Your task to perform on an android device: uninstall "TextNow: Call + Text Unlimited" Image 0: 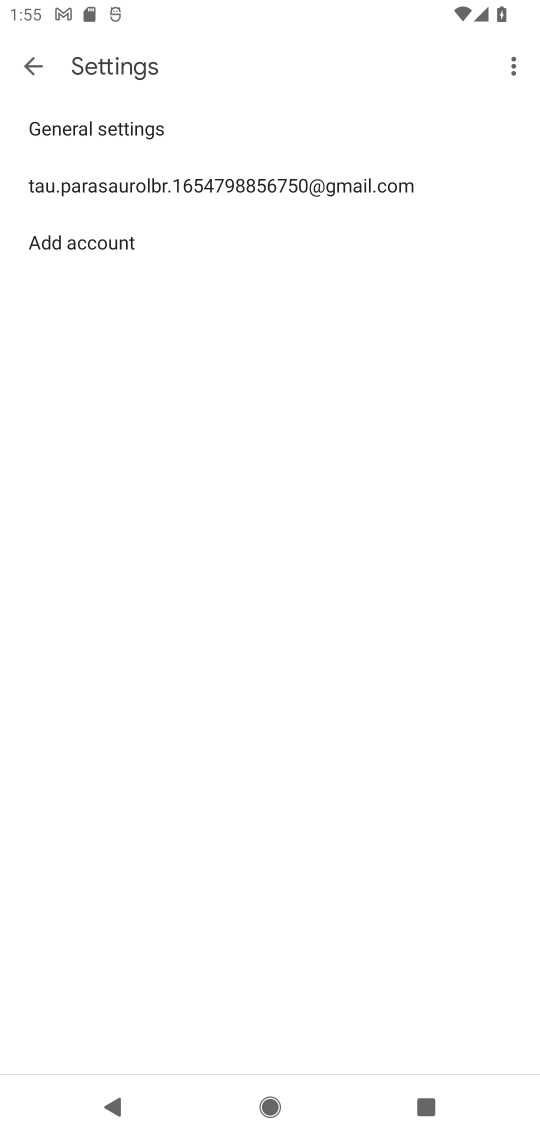
Step 0: press home button
Your task to perform on an android device: uninstall "TextNow: Call + Text Unlimited" Image 1: 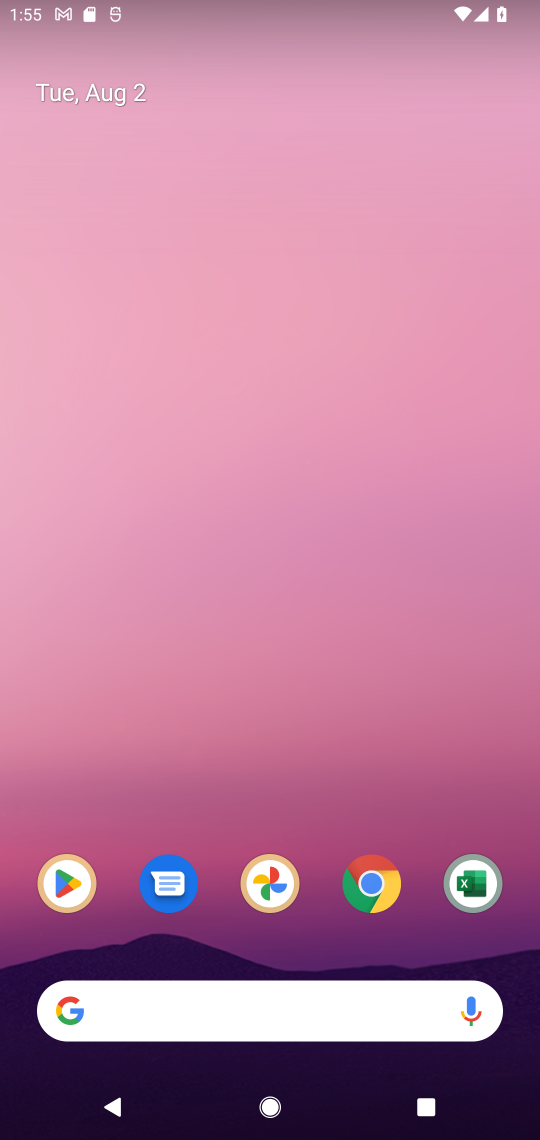
Step 1: click (61, 878)
Your task to perform on an android device: uninstall "TextNow: Call + Text Unlimited" Image 2: 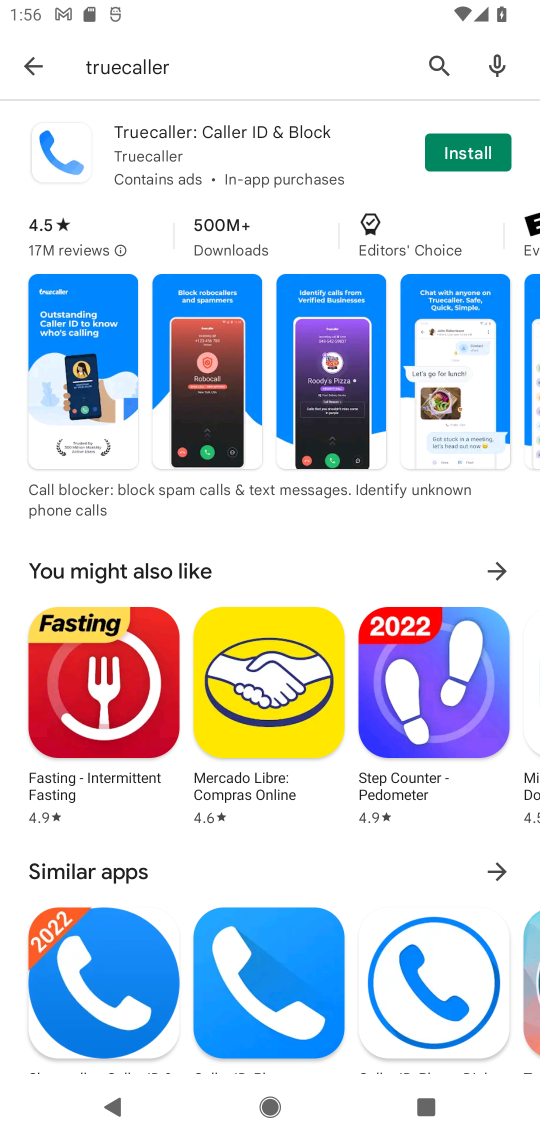
Step 2: click (434, 63)
Your task to perform on an android device: uninstall "TextNow: Call + Text Unlimited" Image 3: 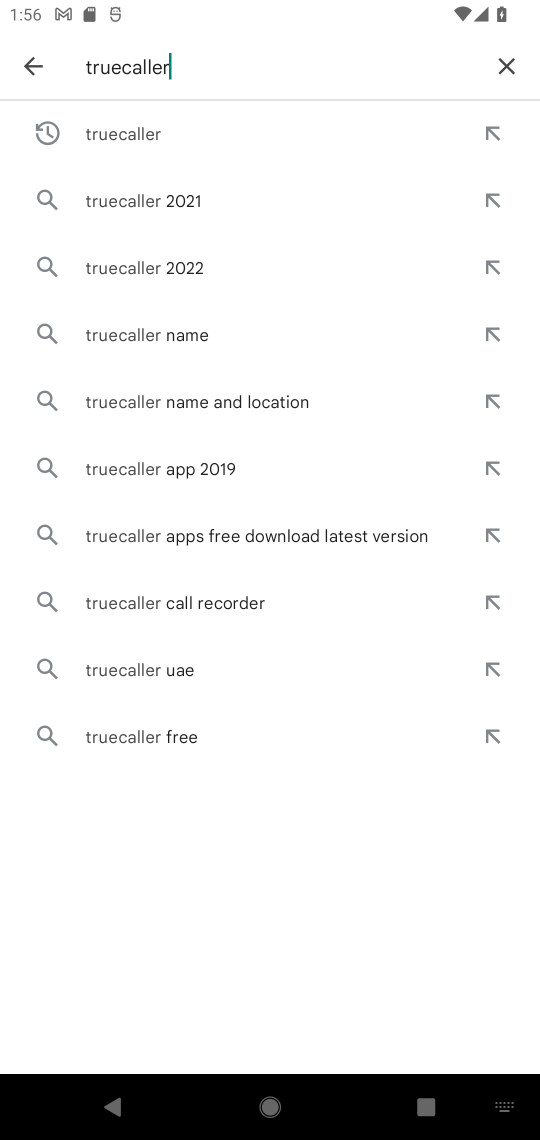
Step 3: click (512, 53)
Your task to perform on an android device: uninstall "TextNow: Call + Text Unlimited" Image 4: 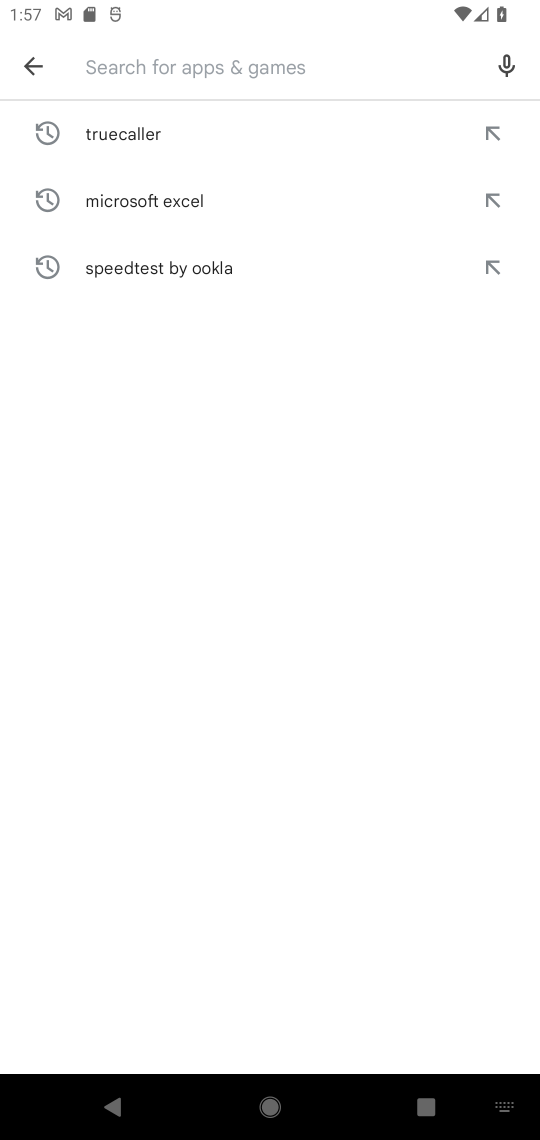
Step 4: type "TextNow:Call+Text Unlimited"
Your task to perform on an android device: uninstall "TextNow: Call + Text Unlimited" Image 5: 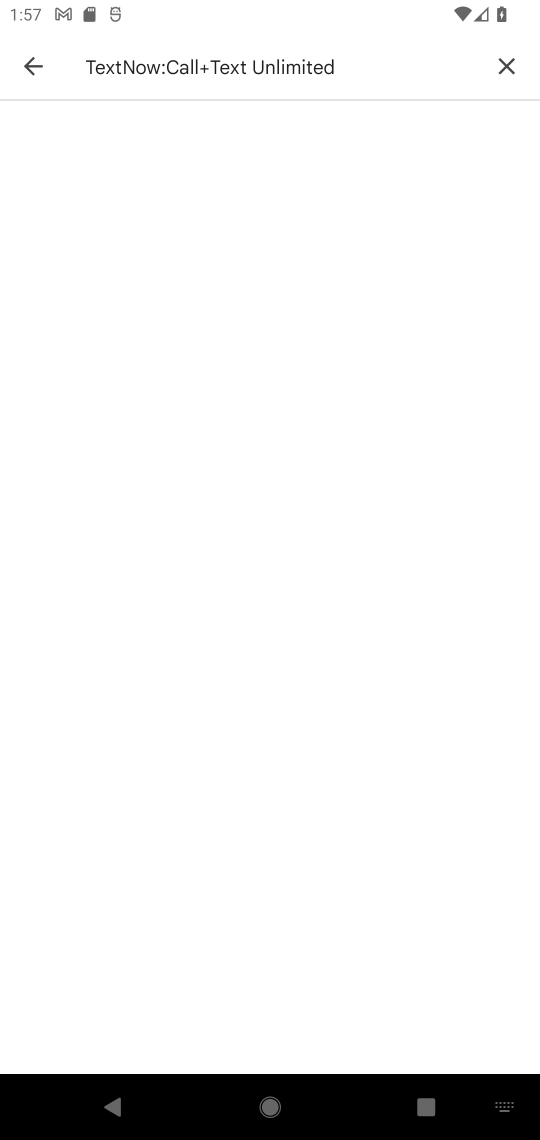
Step 5: click (363, 63)
Your task to perform on an android device: uninstall "TextNow: Call + Text Unlimited" Image 6: 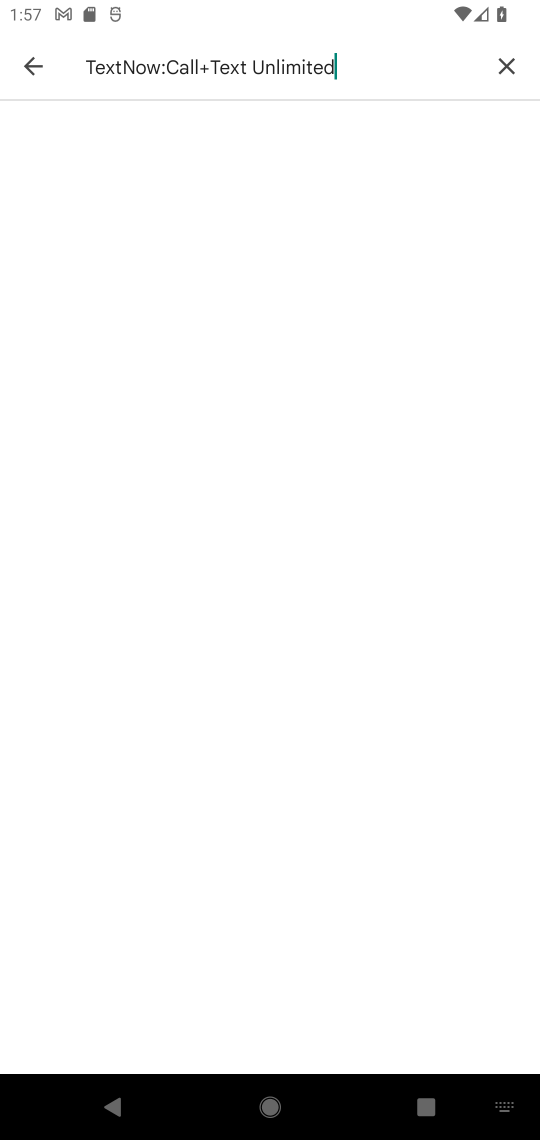
Step 6: click (363, 63)
Your task to perform on an android device: uninstall "TextNow: Call + Text Unlimited" Image 7: 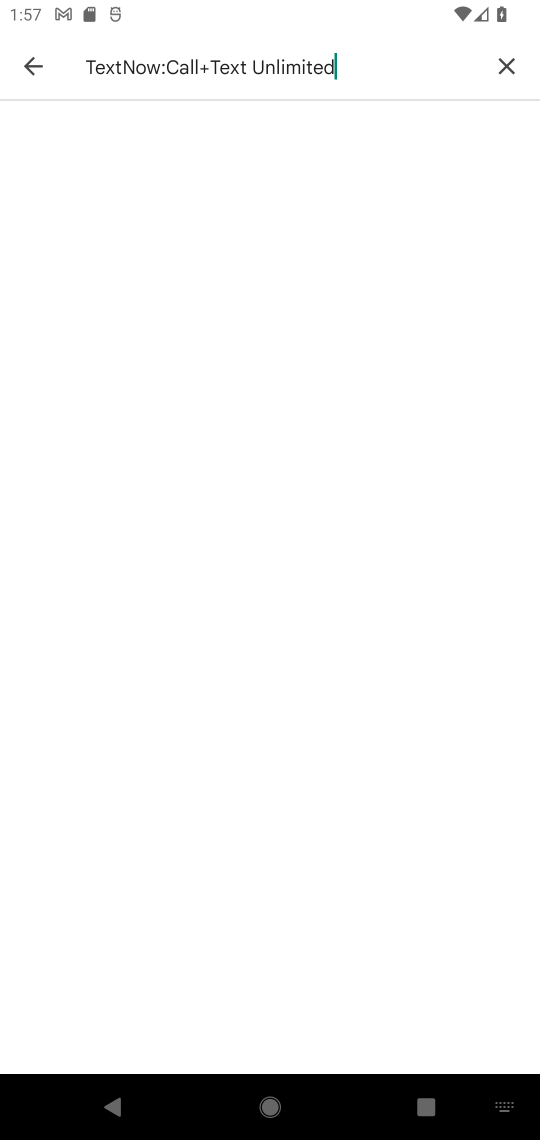
Step 7: click (363, 63)
Your task to perform on an android device: uninstall "TextNow: Call + Text Unlimited" Image 8: 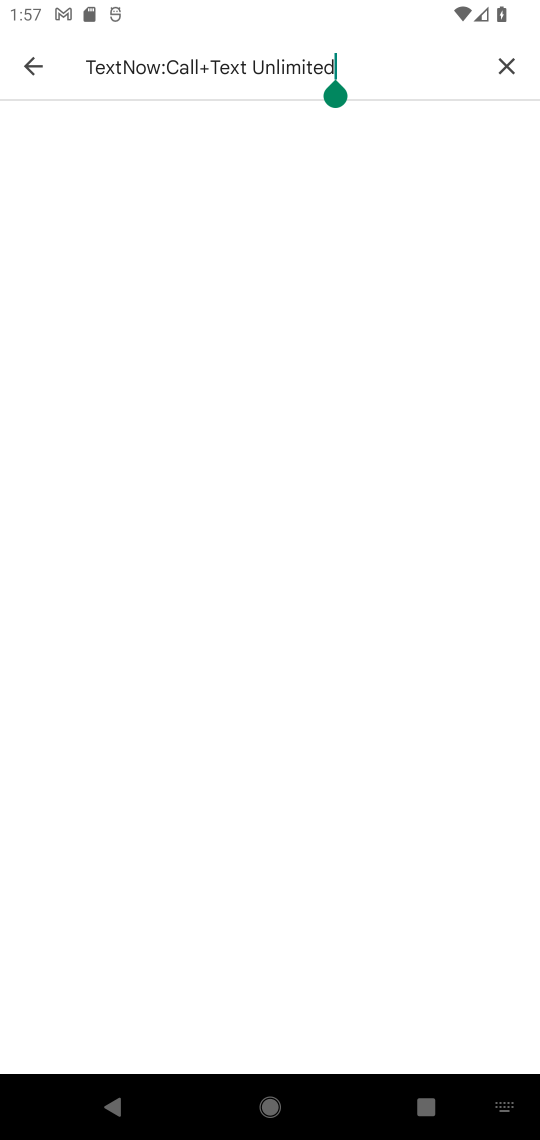
Step 8: click (36, 65)
Your task to perform on an android device: uninstall "TextNow: Call + Text Unlimited" Image 9: 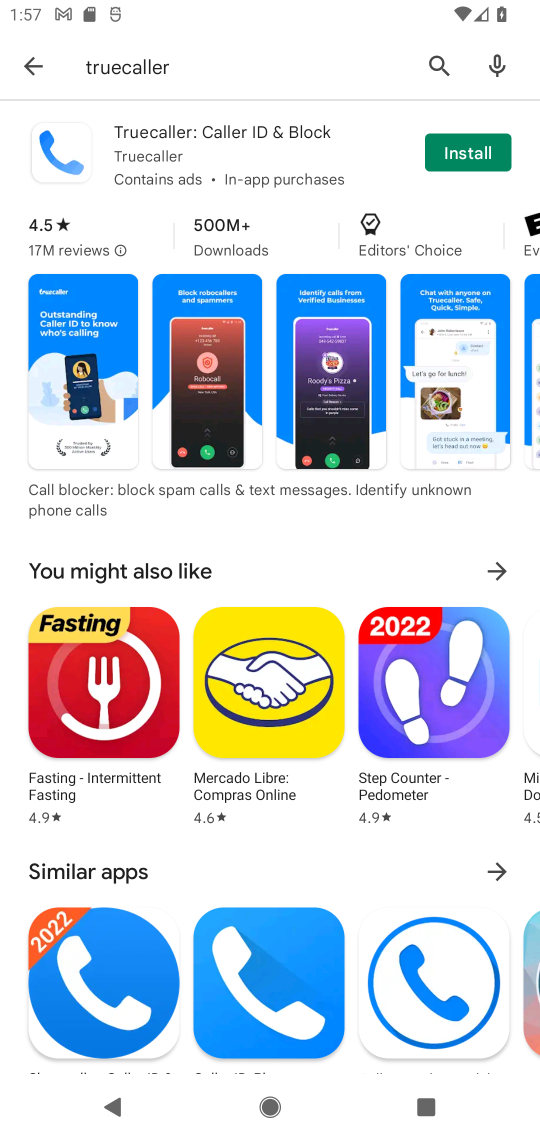
Step 9: task complete